Your task to perform on an android device: Go to notification settings Image 0: 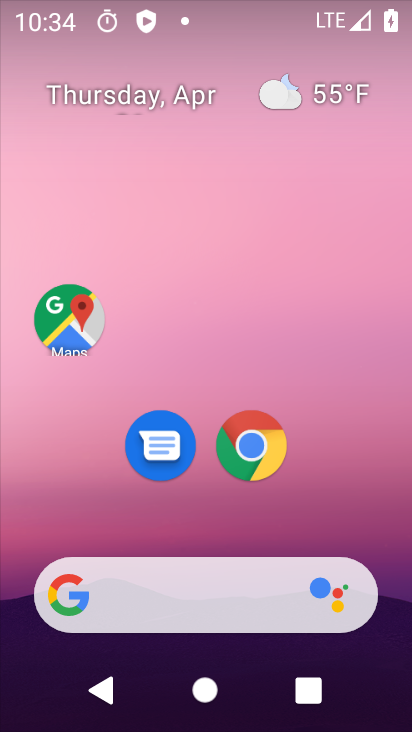
Step 0: drag from (352, 529) to (325, 4)
Your task to perform on an android device: Go to notification settings Image 1: 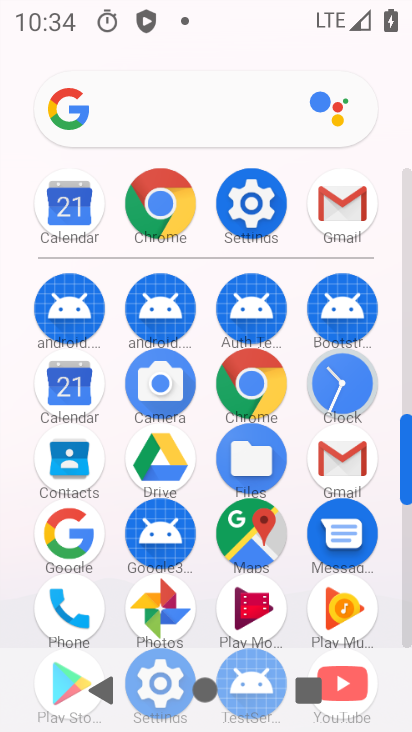
Step 1: click (249, 199)
Your task to perform on an android device: Go to notification settings Image 2: 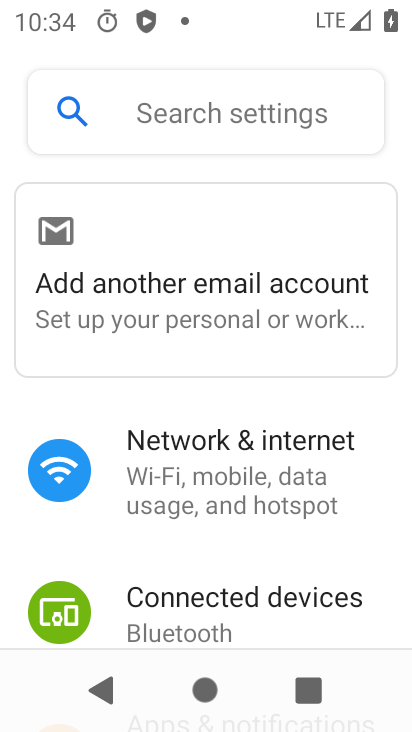
Step 2: drag from (388, 608) to (359, 365)
Your task to perform on an android device: Go to notification settings Image 3: 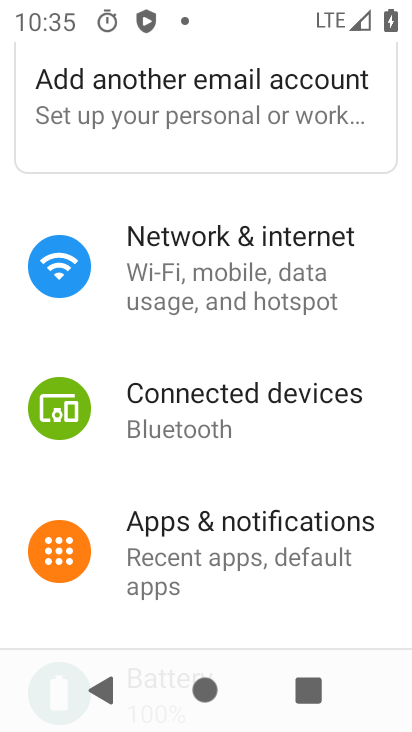
Step 3: click (208, 549)
Your task to perform on an android device: Go to notification settings Image 4: 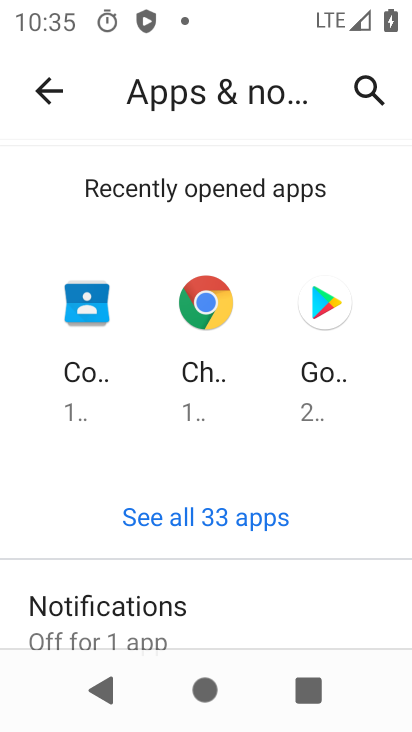
Step 4: task complete